Your task to perform on an android device: Open calendar and show me the third week of next month Image 0: 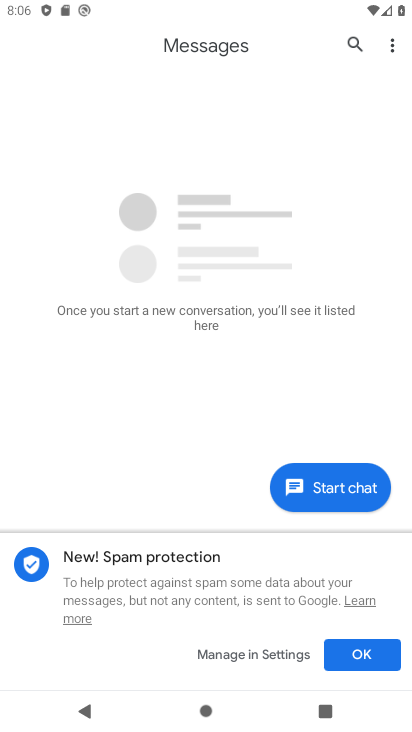
Step 0: press home button
Your task to perform on an android device: Open calendar and show me the third week of next month Image 1: 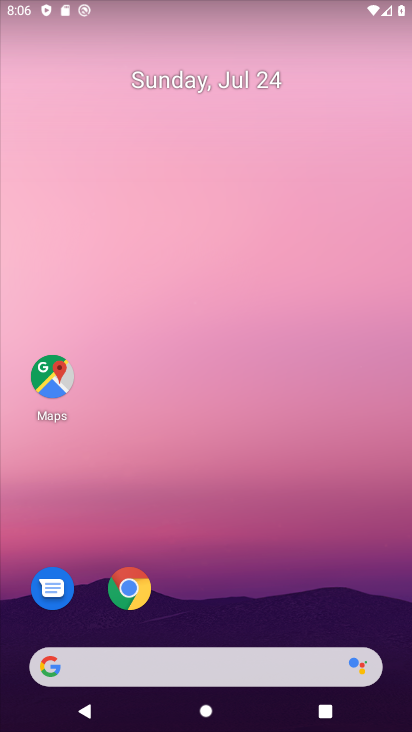
Step 1: drag from (384, 614) to (326, 75)
Your task to perform on an android device: Open calendar and show me the third week of next month Image 2: 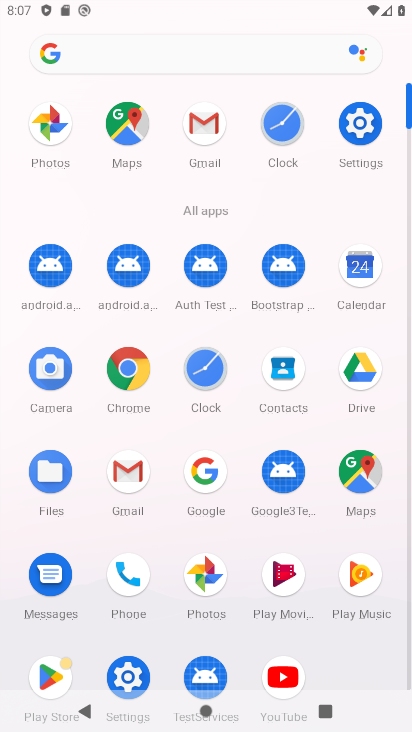
Step 2: click (358, 265)
Your task to perform on an android device: Open calendar and show me the third week of next month Image 3: 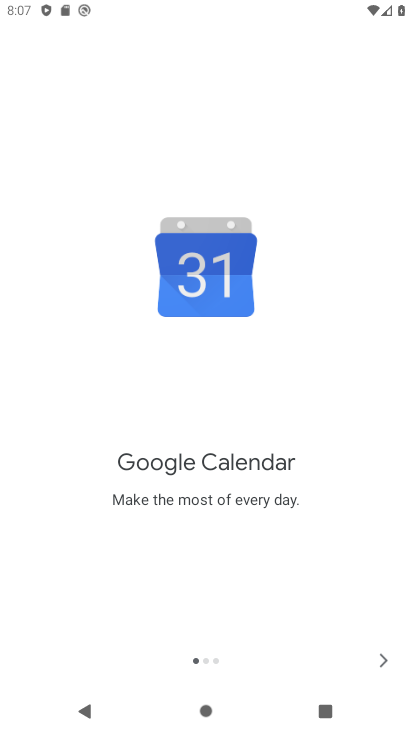
Step 3: click (380, 657)
Your task to perform on an android device: Open calendar and show me the third week of next month Image 4: 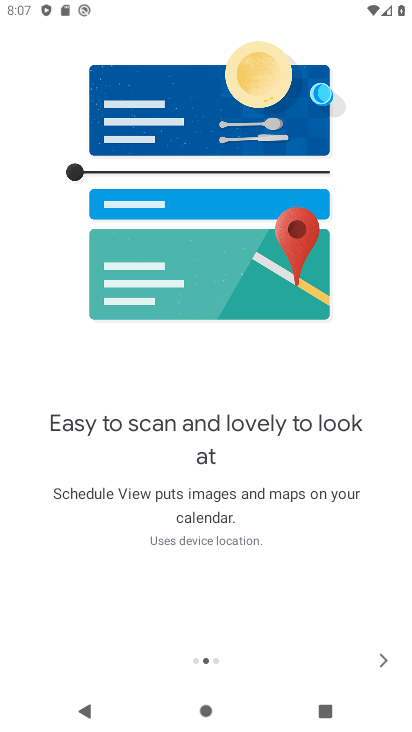
Step 4: click (380, 657)
Your task to perform on an android device: Open calendar and show me the third week of next month Image 5: 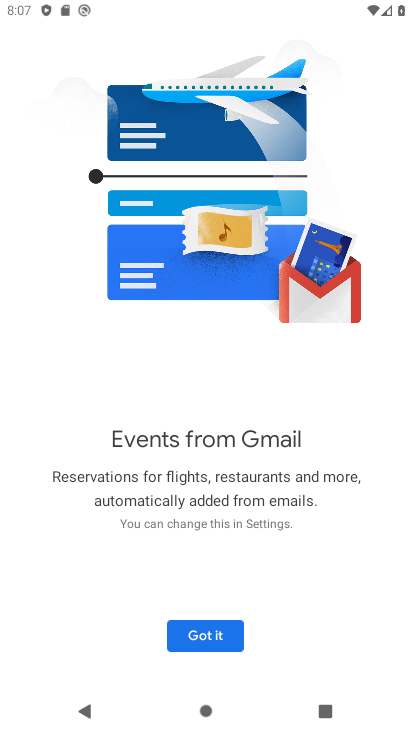
Step 5: click (206, 632)
Your task to perform on an android device: Open calendar and show me the third week of next month Image 6: 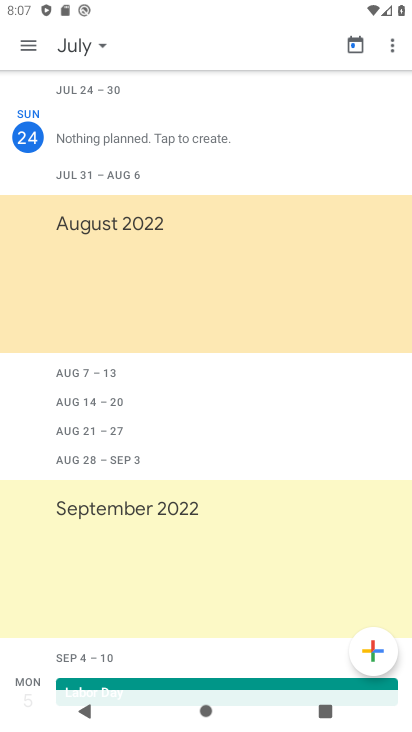
Step 6: click (29, 50)
Your task to perform on an android device: Open calendar and show me the third week of next month Image 7: 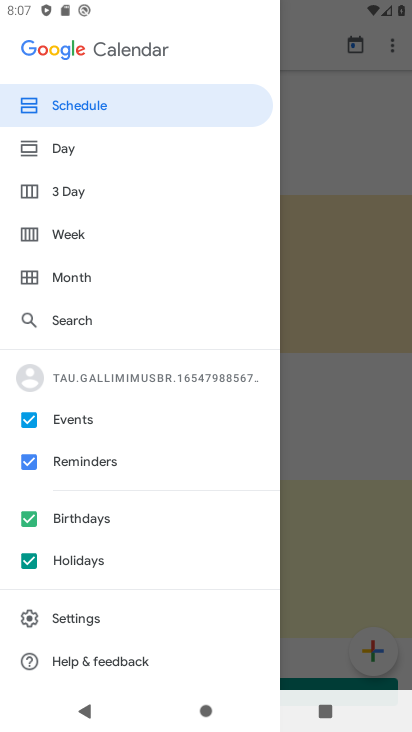
Step 7: click (75, 235)
Your task to perform on an android device: Open calendar and show me the third week of next month Image 8: 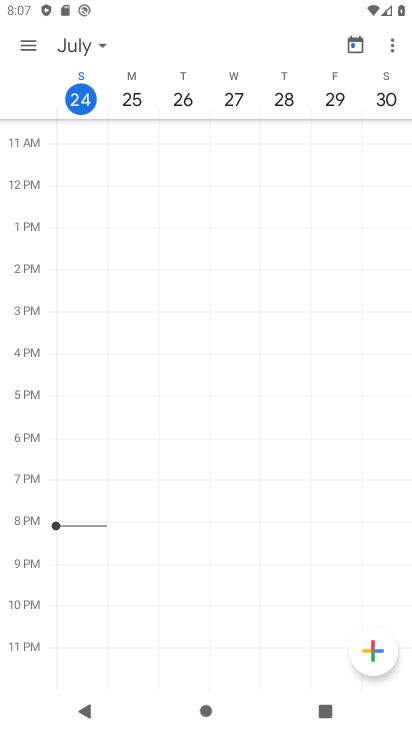
Step 8: click (104, 40)
Your task to perform on an android device: Open calendar and show me the third week of next month Image 9: 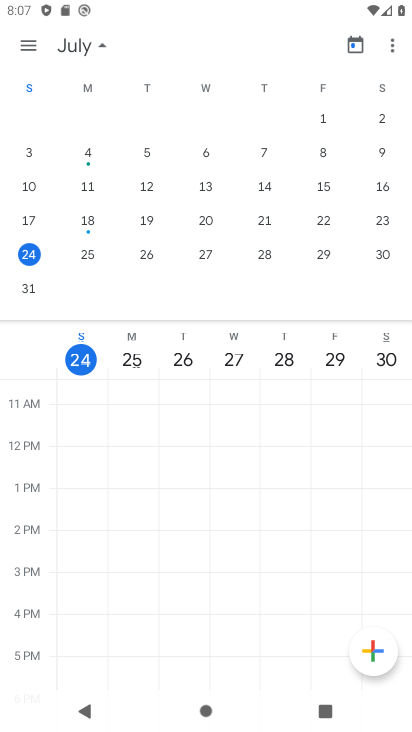
Step 9: drag from (386, 211) to (22, 191)
Your task to perform on an android device: Open calendar and show me the third week of next month Image 10: 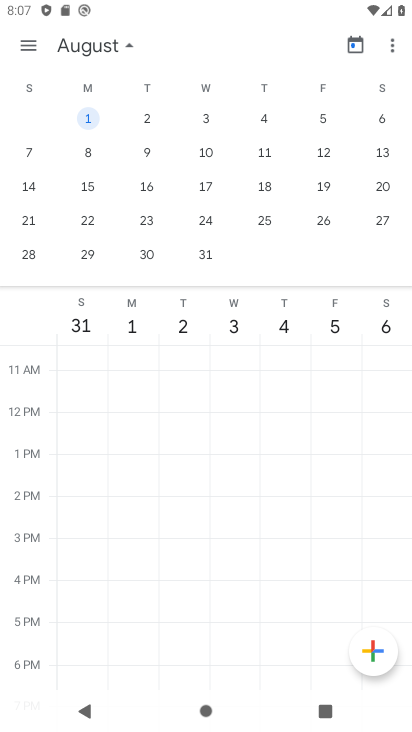
Step 10: click (29, 219)
Your task to perform on an android device: Open calendar and show me the third week of next month Image 11: 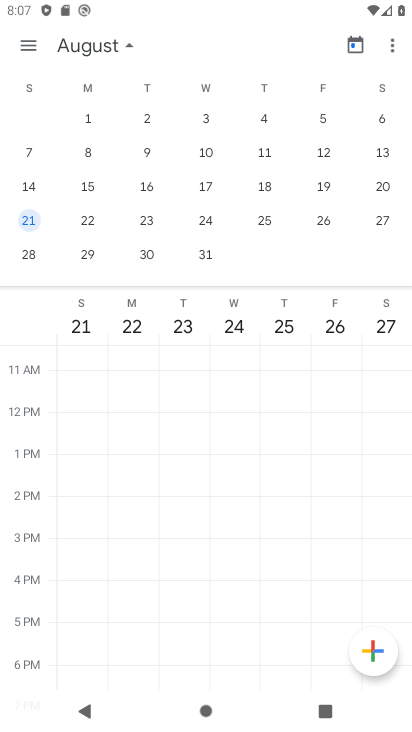
Step 11: task complete